Your task to perform on an android device: delete the emails in spam in the gmail app Image 0: 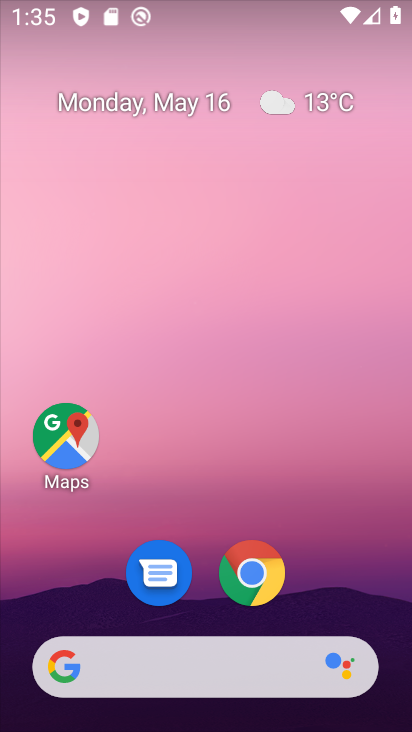
Step 0: click (230, 256)
Your task to perform on an android device: delete the emails in spam in the gmail app Image 1: 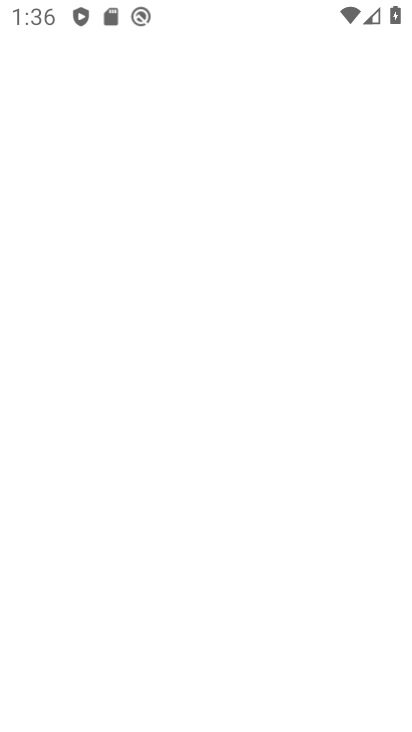
Step 1: press home button
Your task to perform on an android device: delete the emails in spam in the gmail app Image 2: 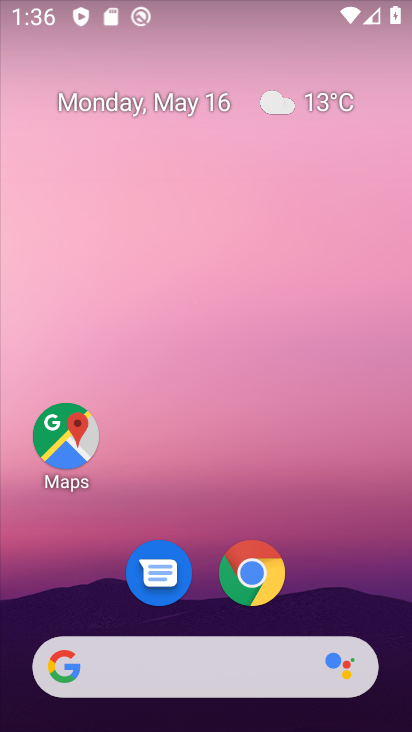
Step 2: click (154, 120)
Your task to perform on an android device: delete the emails in spam in the gmail app Image 3: 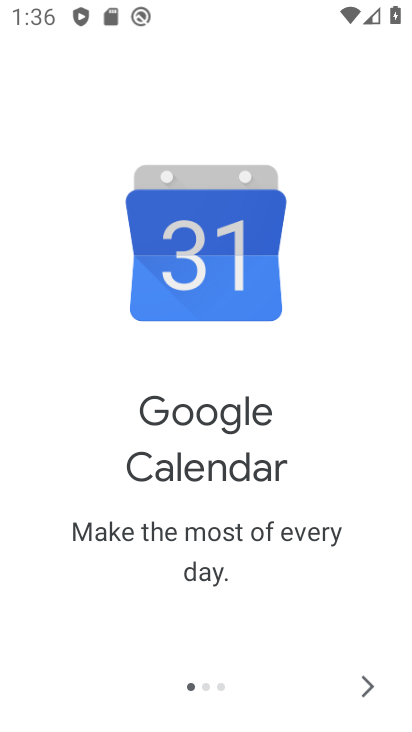
Step 3: press home button
Your task to perform on an android device: delete the emails in spam in the gmail app Image 4: 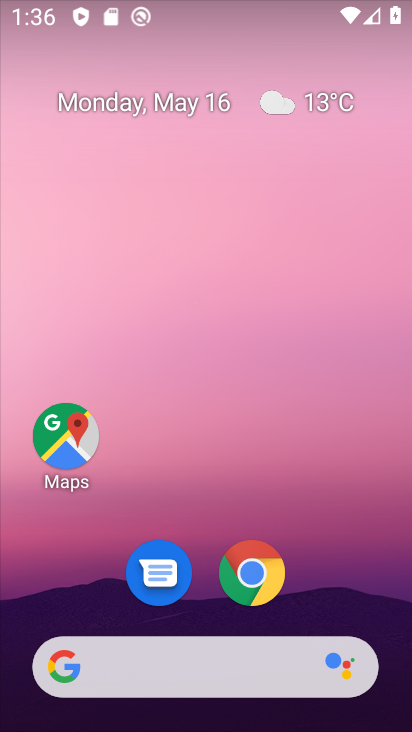
Step 4: drag from (210, 629) to (248, 22)
Your task to perform on an android device: delete the emails in spam in the gmail app Image 5: 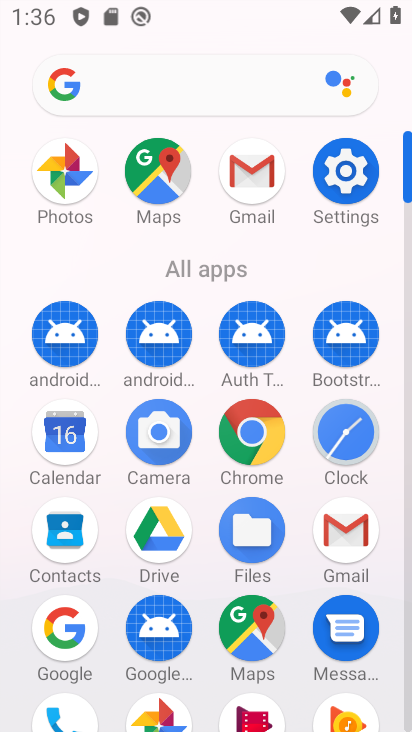
Step 5: click (252, 177)
Your task to perform on an android device: delete the emails in spam in the gmail app Image 6: 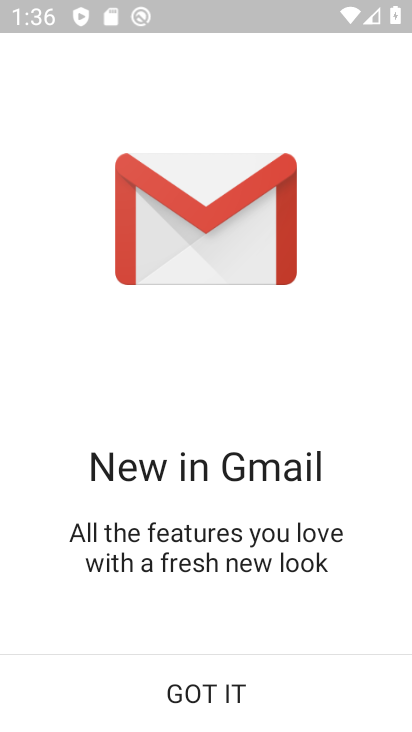
Step 6: click (219, 681)
Your task to perform on an android device: delete the emails in spam in the gmail app Image 7: 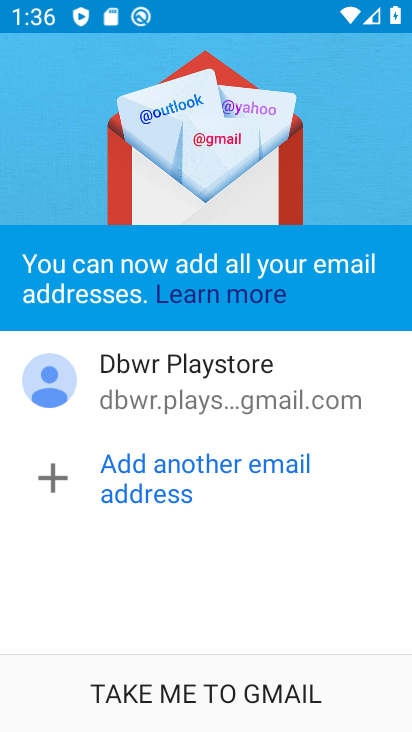
Step 7: click (219, 681)
Your task to perform on an android device: delete the emails in spam in the gmail app Image 8: 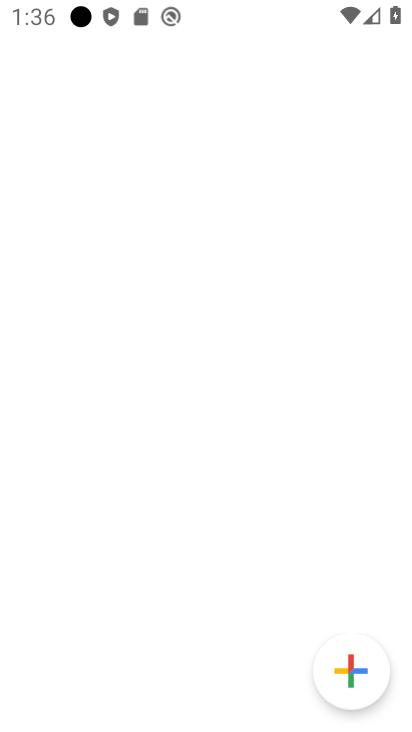
Step 8: click (219, 681)
Your task to perform on an android device: delete the emails in spam in the gmail app Image 9: 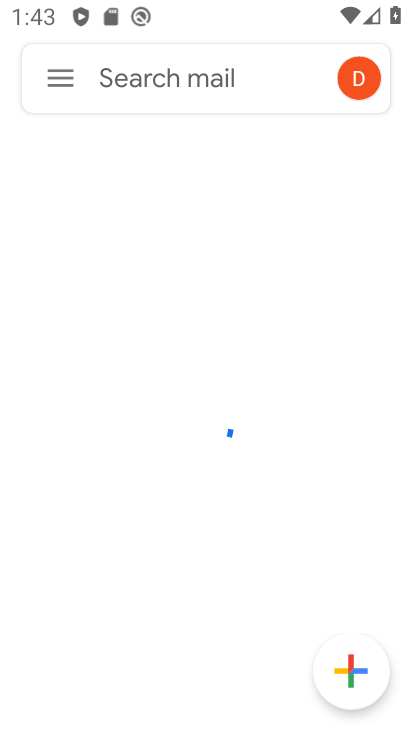
Step 9: task complete